Your task to perform on an android device: Open calendar and show me the first week of next month Image 0: 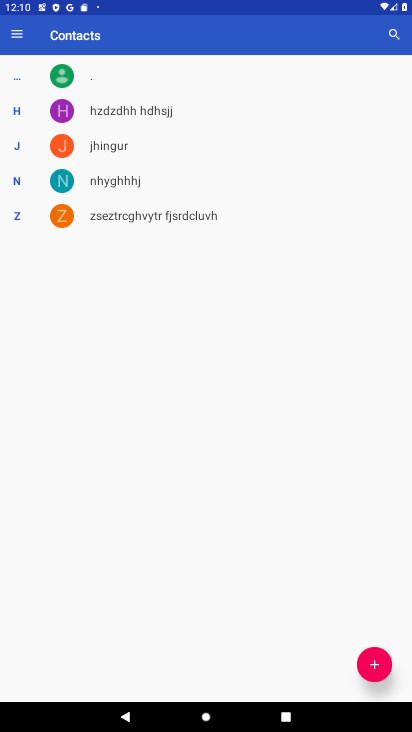
Step 0: press home button
Your task to perform on an android device: Open calendar and show me the first week of next month Image 1: 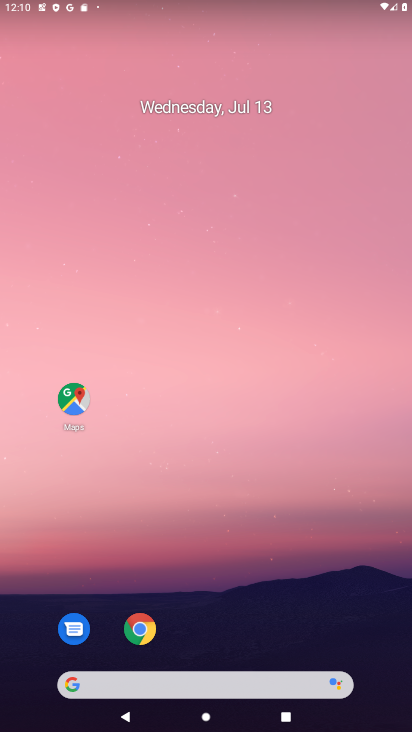
Step 1: drag from (191, 634) to (271, 159)
Your task to perform on an android device: Open calendar and show me the first week of next month Image 2: 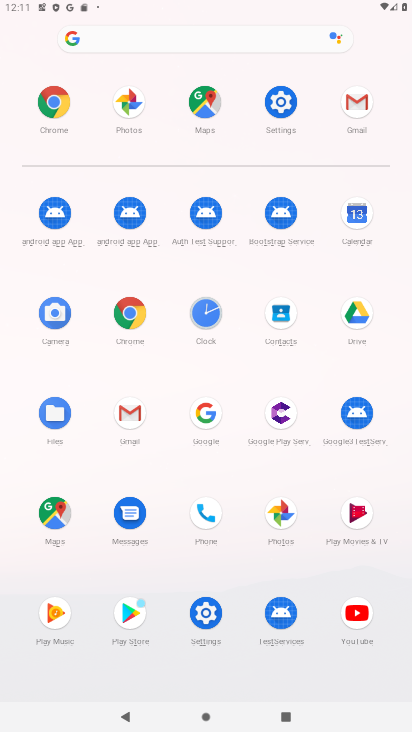
Step 2: click (355, 208)
Your task to perform on an android device: Open calendar and show me the first week of next month Image 3: 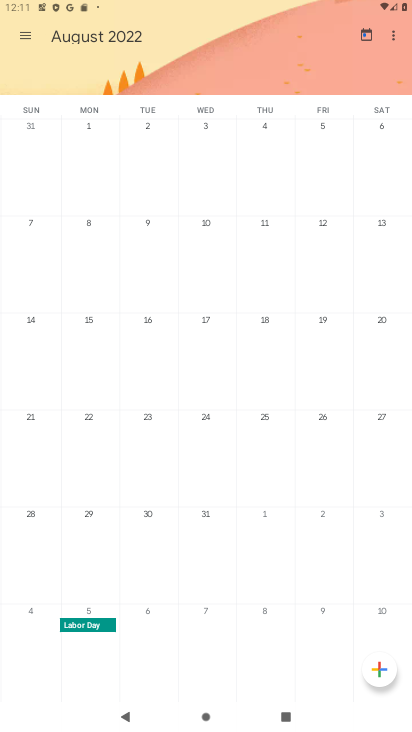
Step 3: task complete